Your task to perform on an android device: open app "Google Calendar" Image 0: 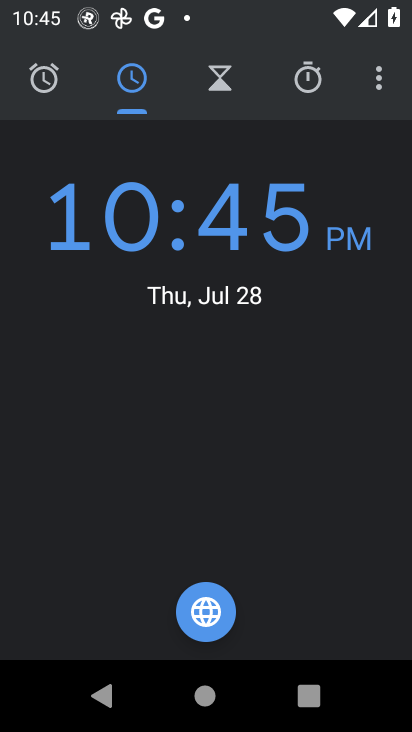
Step 0: press back button
Your task to perform on an android device: open app "Google Calendar" Image 1: 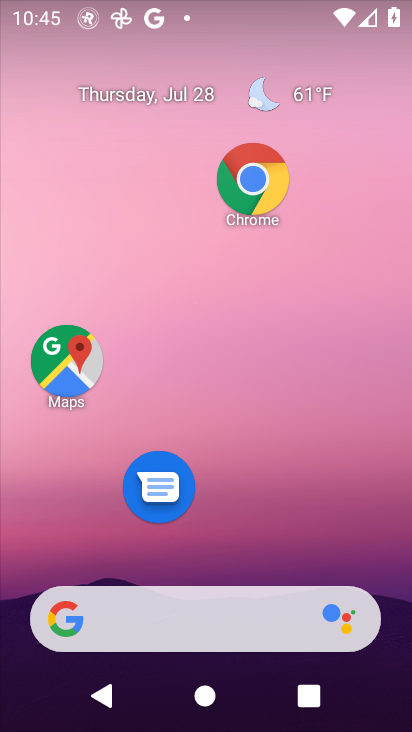
Step 1: drag from (248, 571) to (250, 223)
Your task to perform on an android device: open app "Google Calendar" Image 2: 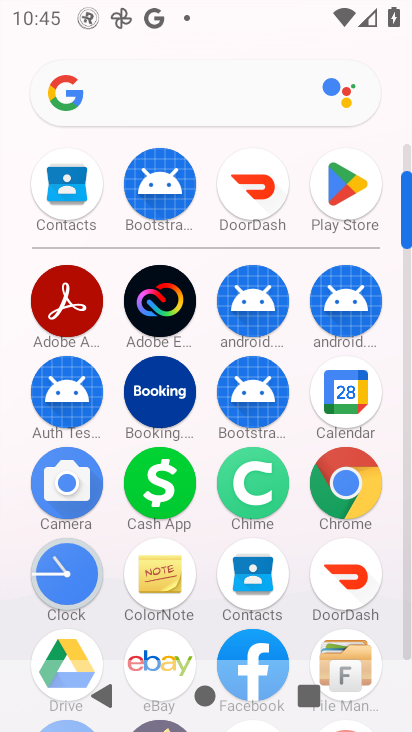
Step 2: click (328, 182)
Your task to perform on an android device: open app "Google Calendar" Image 3: 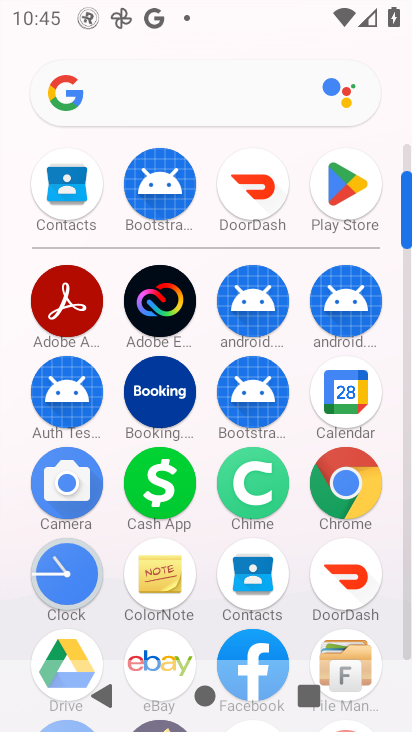
Step 3: click (328, 182)
Your task to perform on an android device: open app "Google Calendar" Image 4: 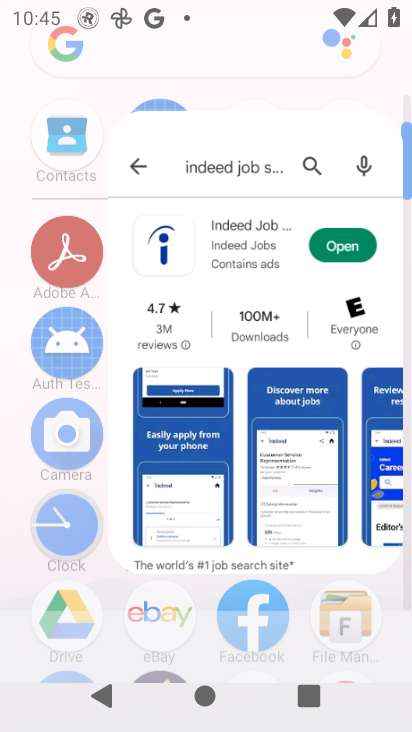
Step 4: click (328, 182)
Your task to perform on an android device: open app "Google Calendar" Image 5: 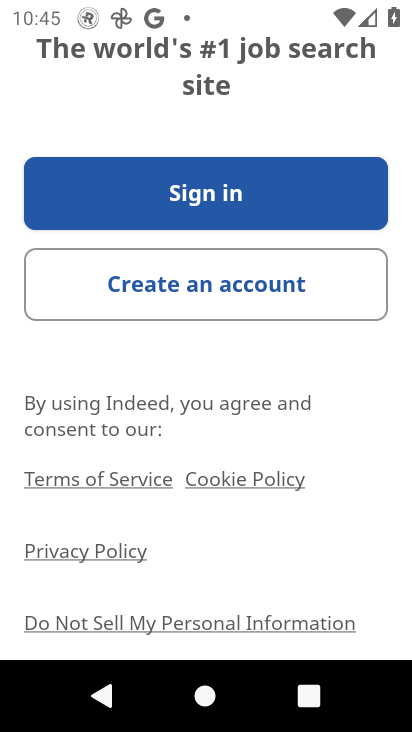
Step 5: click (35, 68)
Your task to perform on an android device: open app "Google Calendar" Image 6: 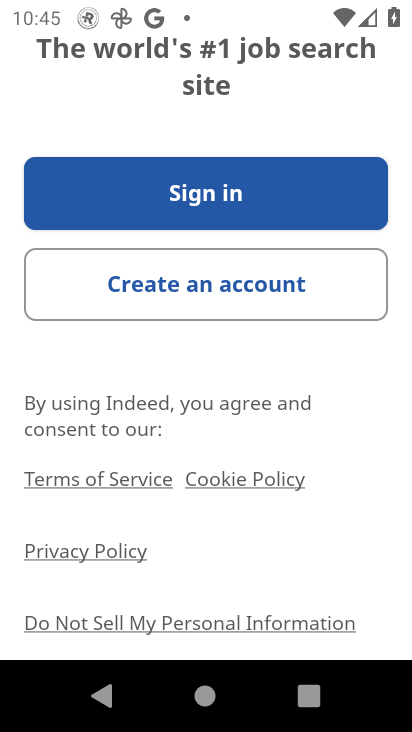
Step 6: press back button
Your task to perform on an android device: open app "Google Calendar" Image 7: 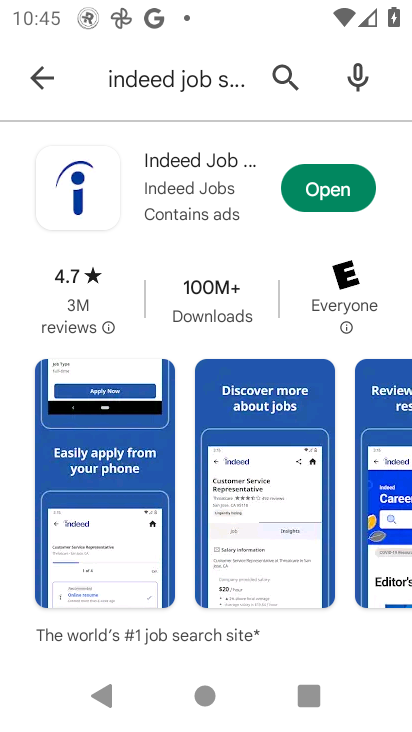
Step 7: click (41, 74)
Your task to perform on an android device: open app "Google Calendar" Image 8: 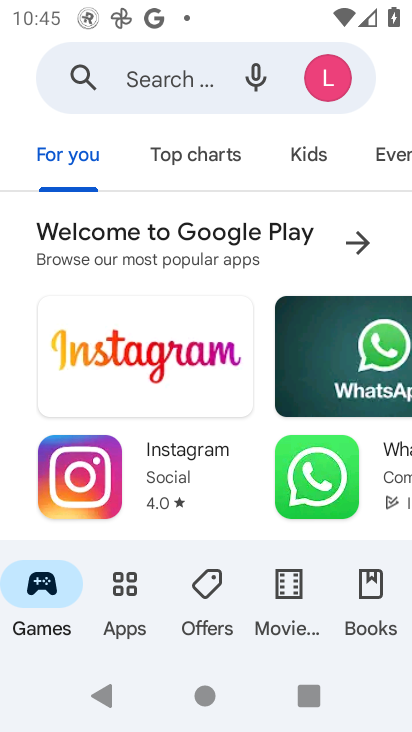
Step 8: click (35, 73)
Your task to perform on an android device: open app "Google Calendar" Image 9: 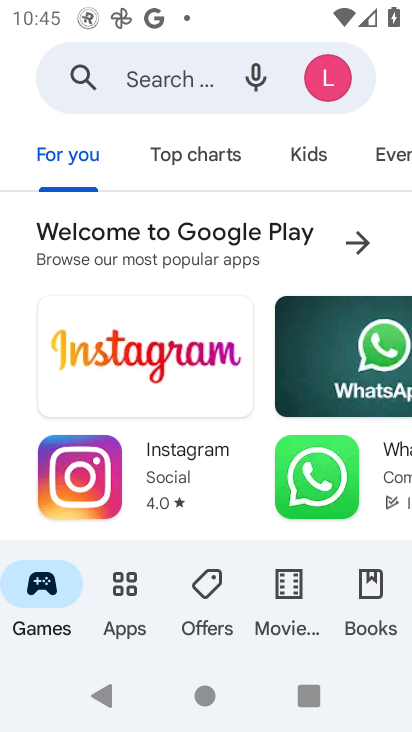
Step 9: click (42, 79)
Your task to perform on an android device: open app "Google Calendar" Image 10: 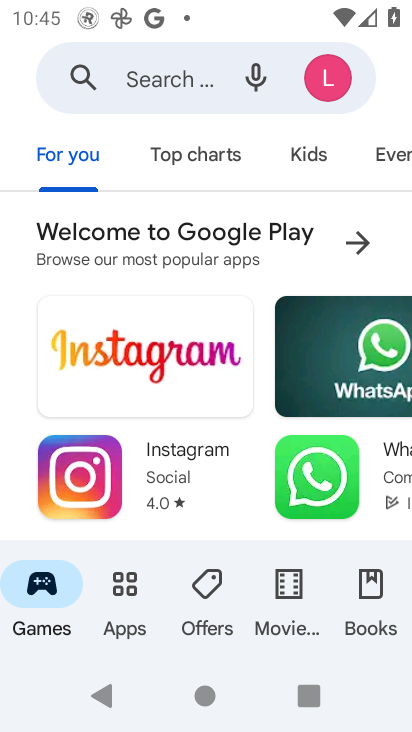
Step 10: click (119, 80)
Your task to perform on an android device: open app "Google Calendar" Image 11: 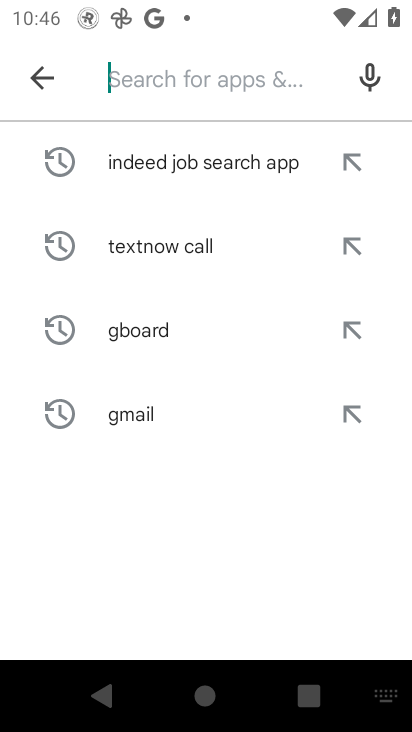
Step 11: type "Google Calendar"
Your task to perform on an android device: open app "Google Calendar" Image 12: 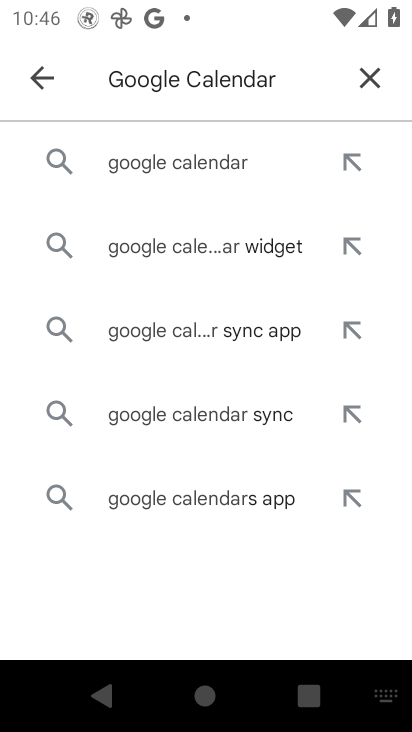
Step 12: click (202, 153)
Your task to perform on an android device: open app "Google Calendar" Image 13: 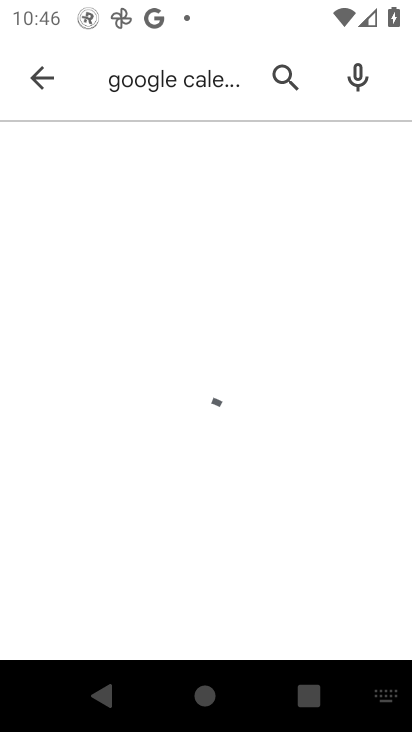
Step 13: click (345, 157)
Your task to perform on an android device: open app "Google Calendar" Image 14: 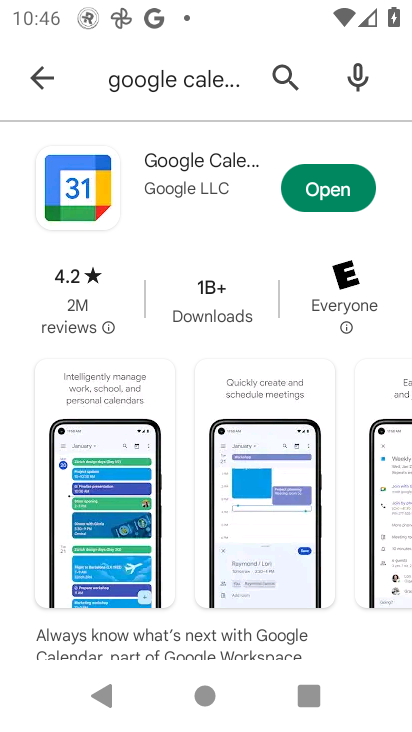
Step 14: click (313, 195)
Your task to perform on an android device: open app "Google Calendar" Image 15: 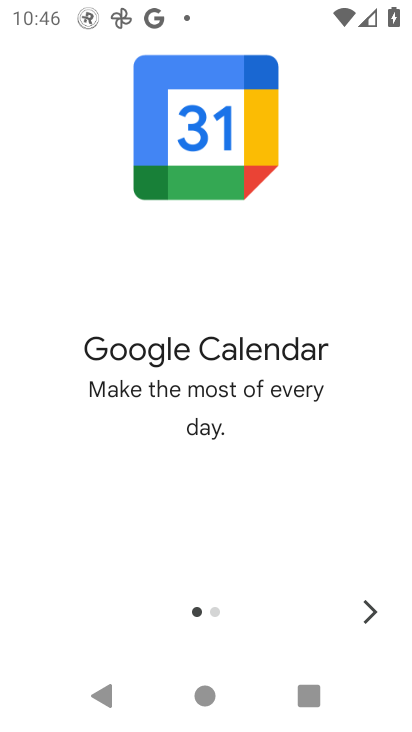
Step 15: click (369, 607)
Your task to perform on an android device: open app "Google Calendar" Image 16: 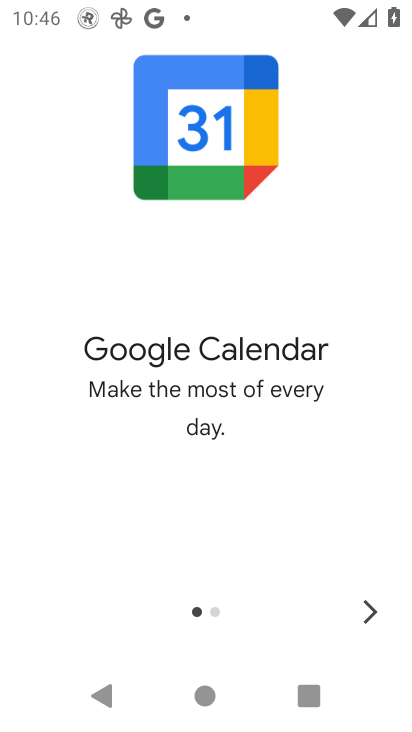
Step 16: click (369, 607)
Your task to perform on an android device: open app "Google Calendar" Image 17: 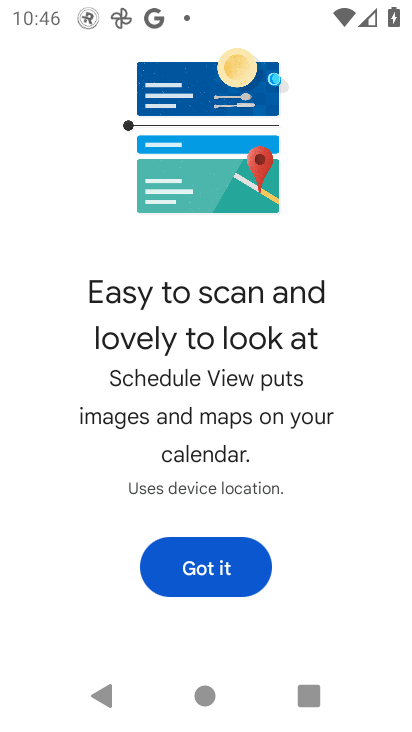
Step 17: click (369, 607)
Your task to perform on an android device: open app "Google Calendar" Image 18: 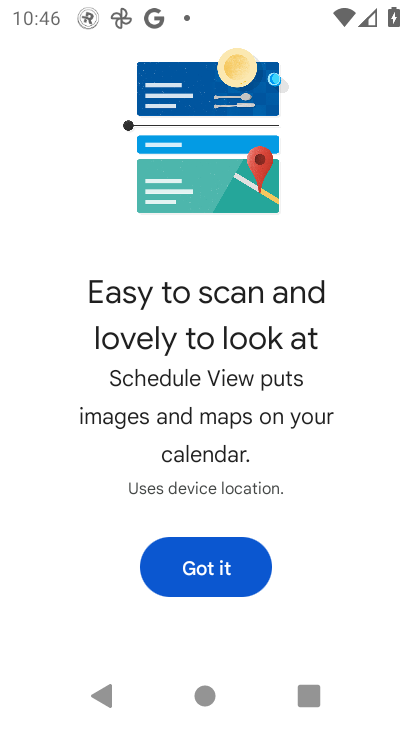
Step 18: click (237, 572)
Your task to perform on an android device: open app "Google Calendar" Image 19: 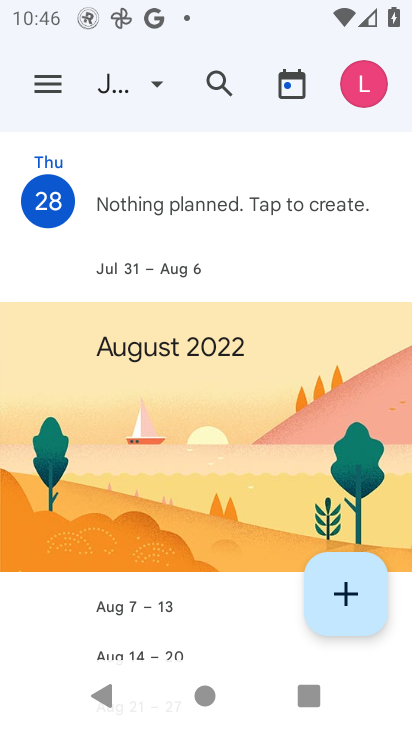
Step 19: task complete